Your task to perform on an android device: open app "The Home Depot" (install if not already installed) and go to login screen Image 0: 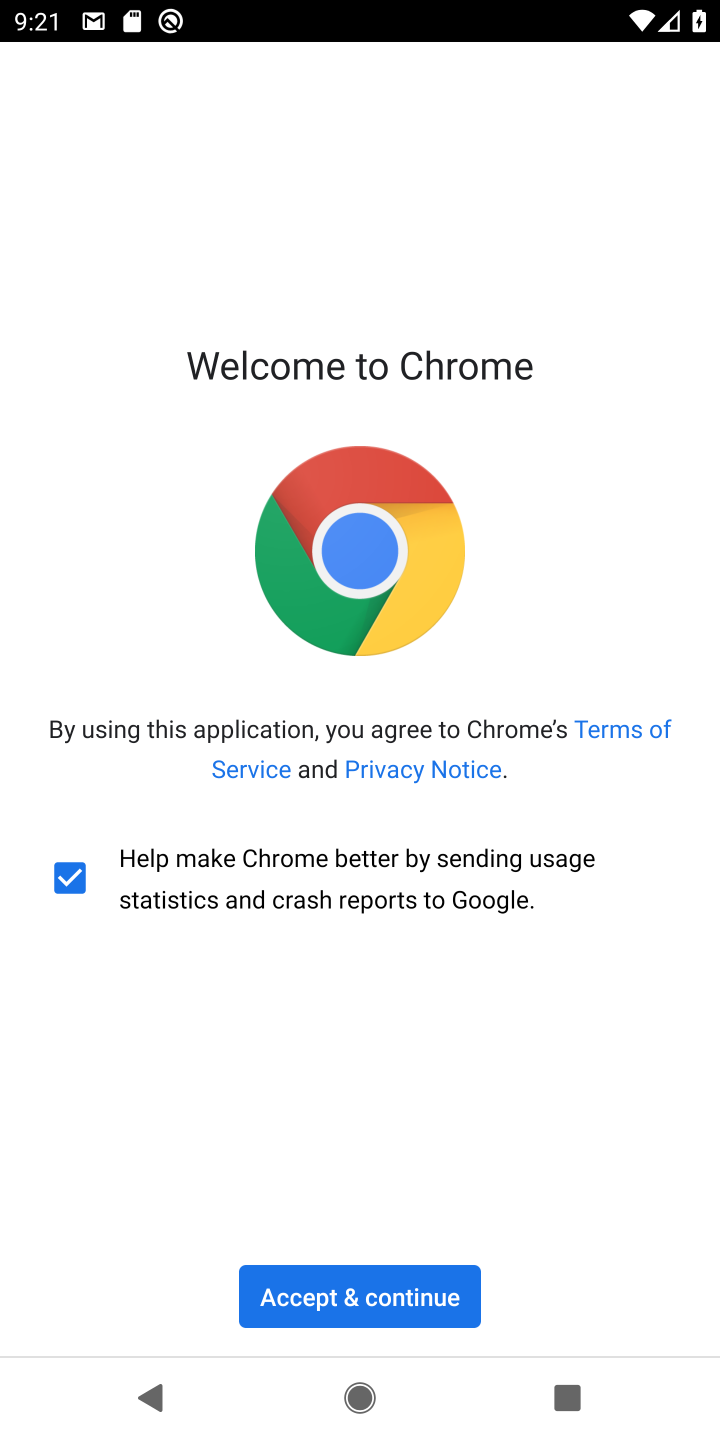
Step 0: press home button
Your task to perform on an android device: open app "The Home Depot" (install if not already installed) and go to login screen Image 1: 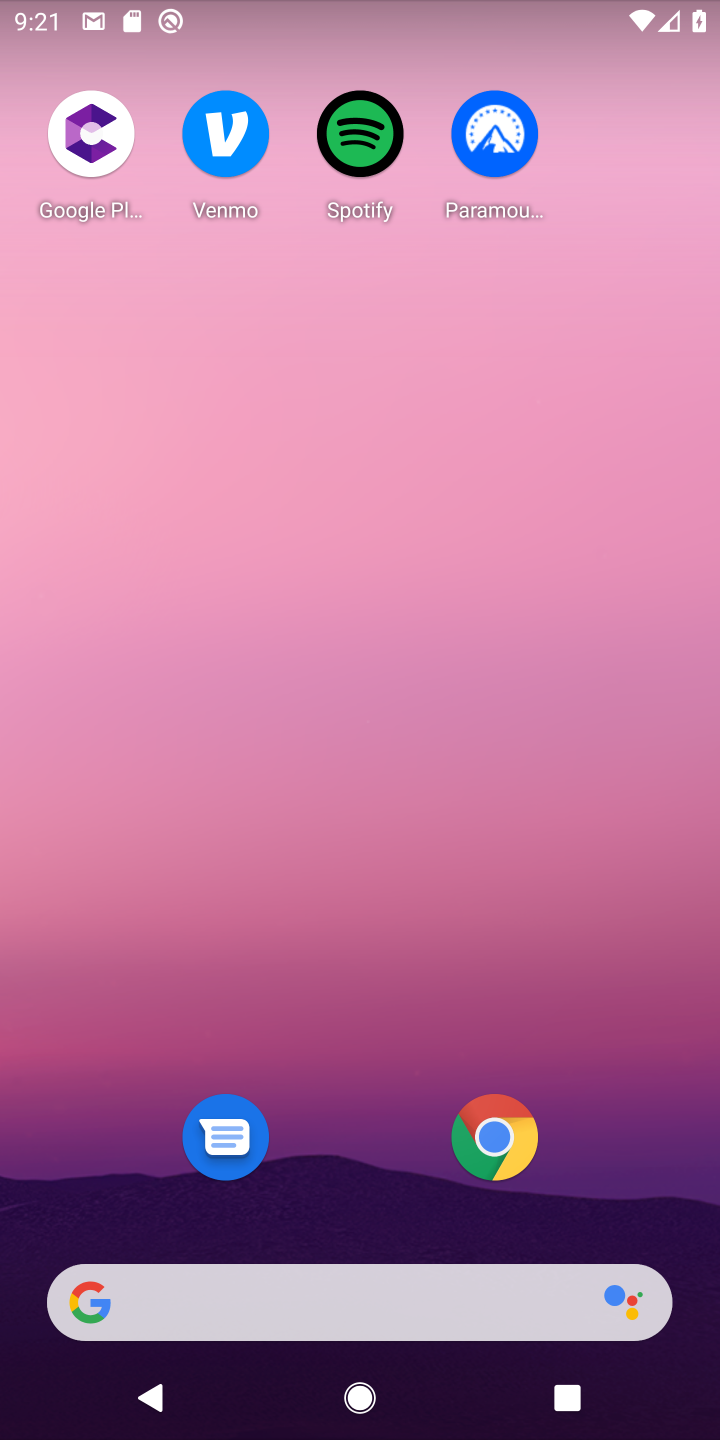
Step 1: drag from (368, 949) to (368, 348)
Your task to perform on an android device: open app "The Home Depot" (install if not already installed) and go to login screen Image 2: 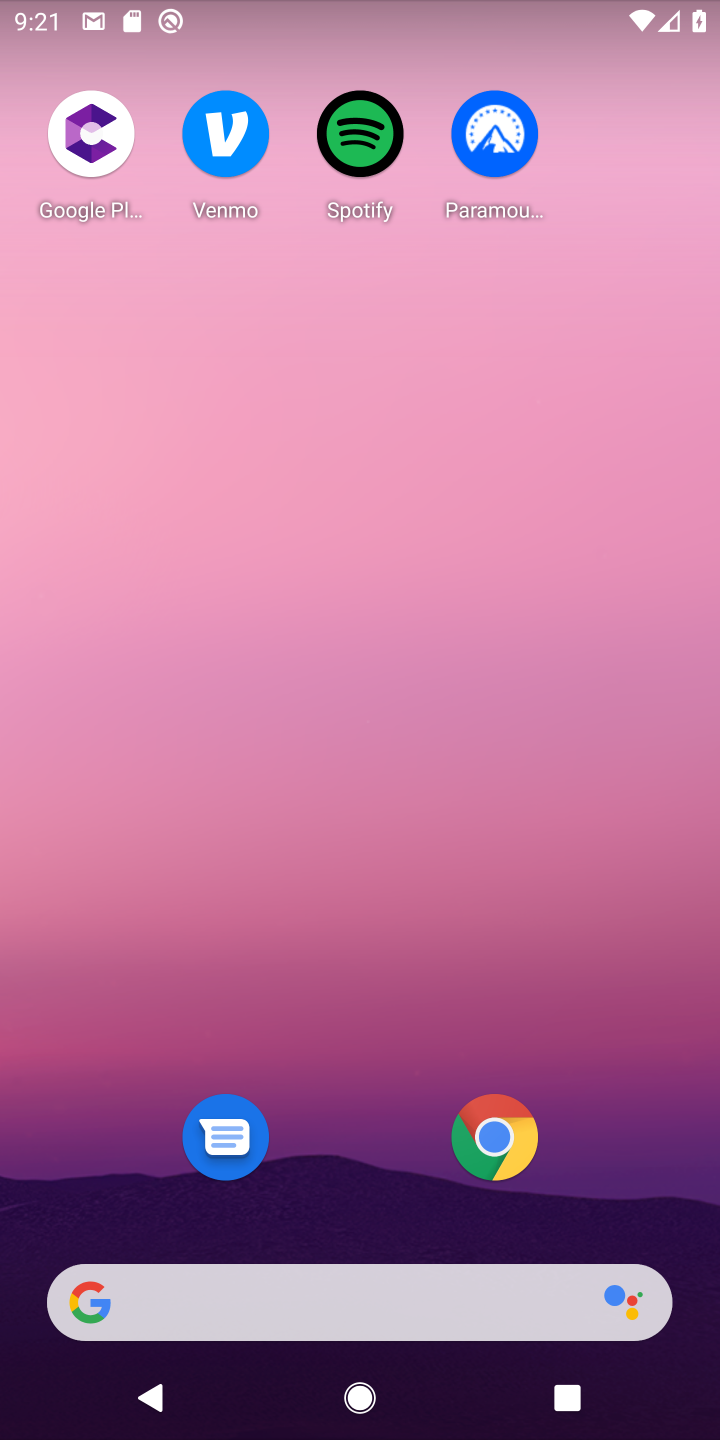
Step 2: drag from (351, 1131) to (359, 383)
Your task to perform on an android device: open app "The Home Depot" (install if not already installed) and go to login screen Image 3: 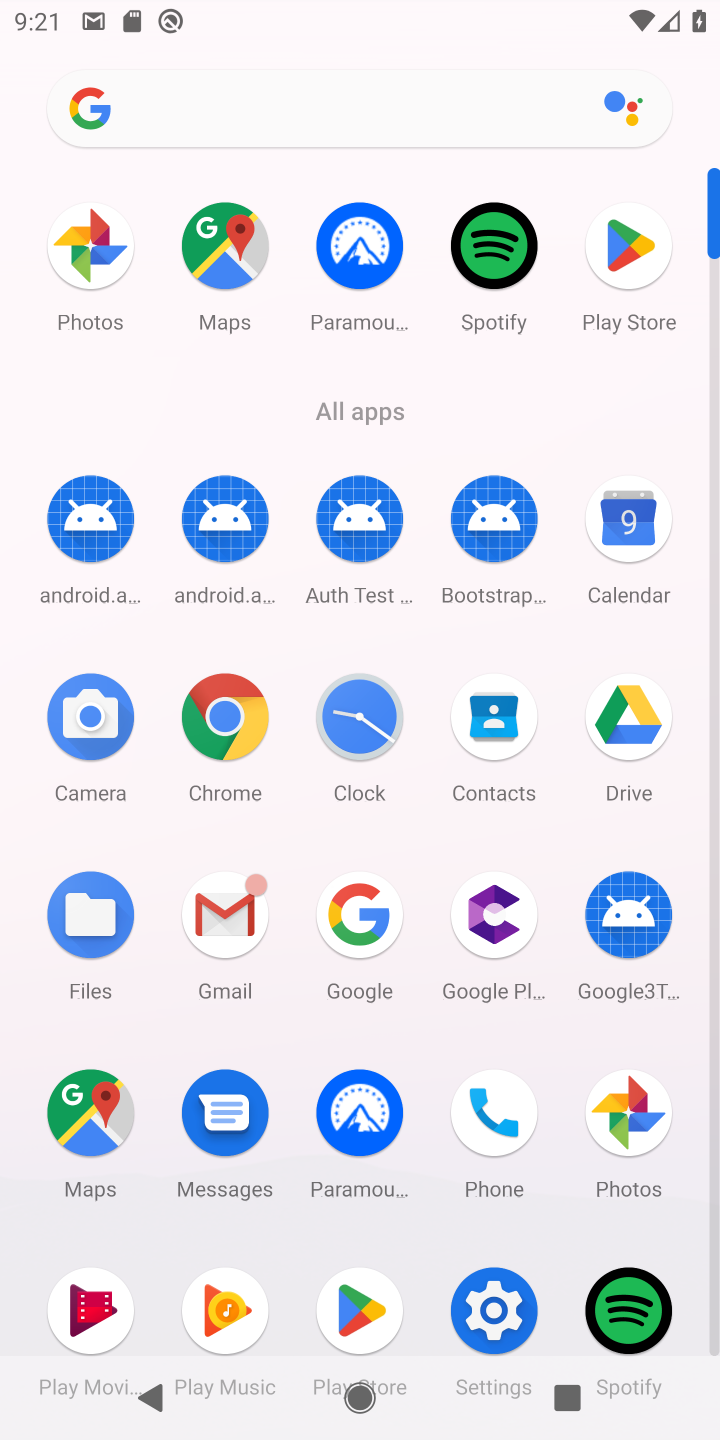
Step 3: click (613, 256)
Your task to perform on an android device: open app "The Home Depot" (install if not already installed) and go to login screen Image 4: 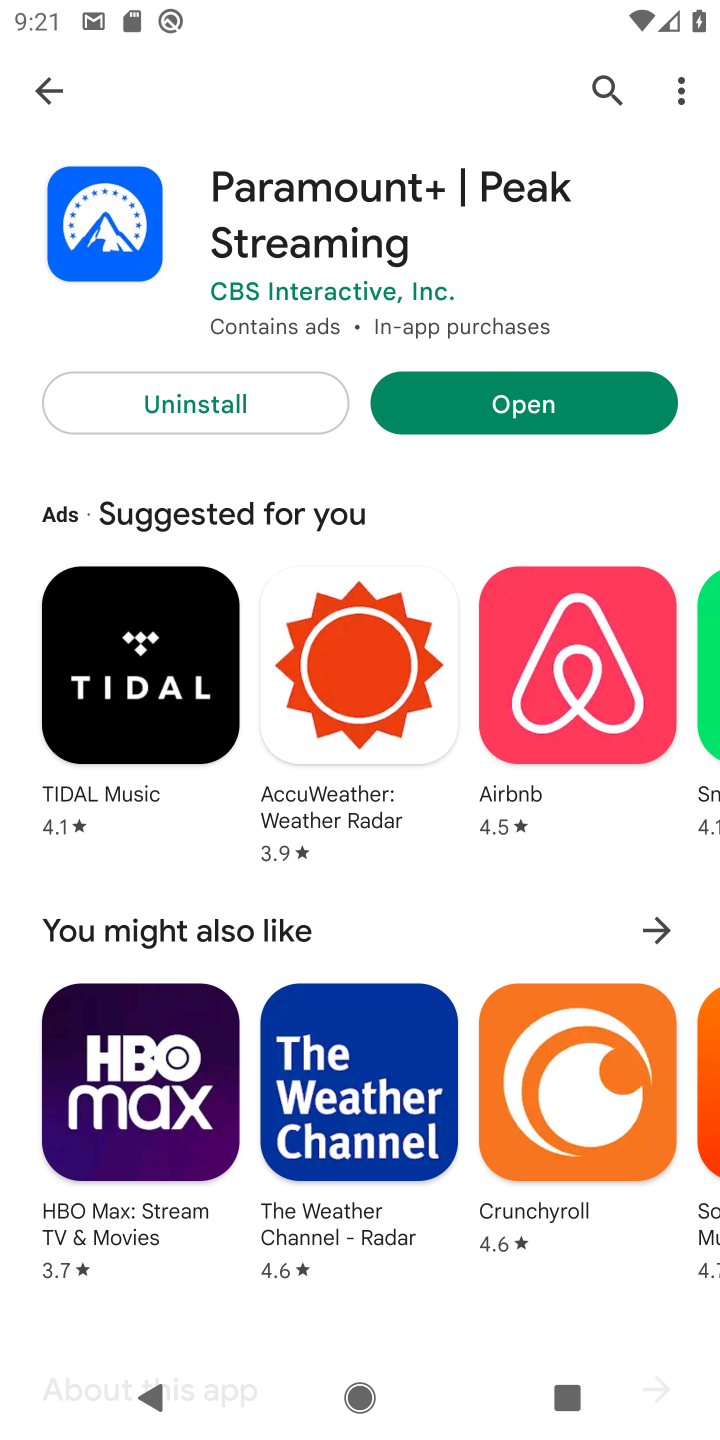
Step 4: click (596, 93)
Your task to perform on an android device: open app "The Home Depot" (install if not already installed) and go to login screen Image 5: 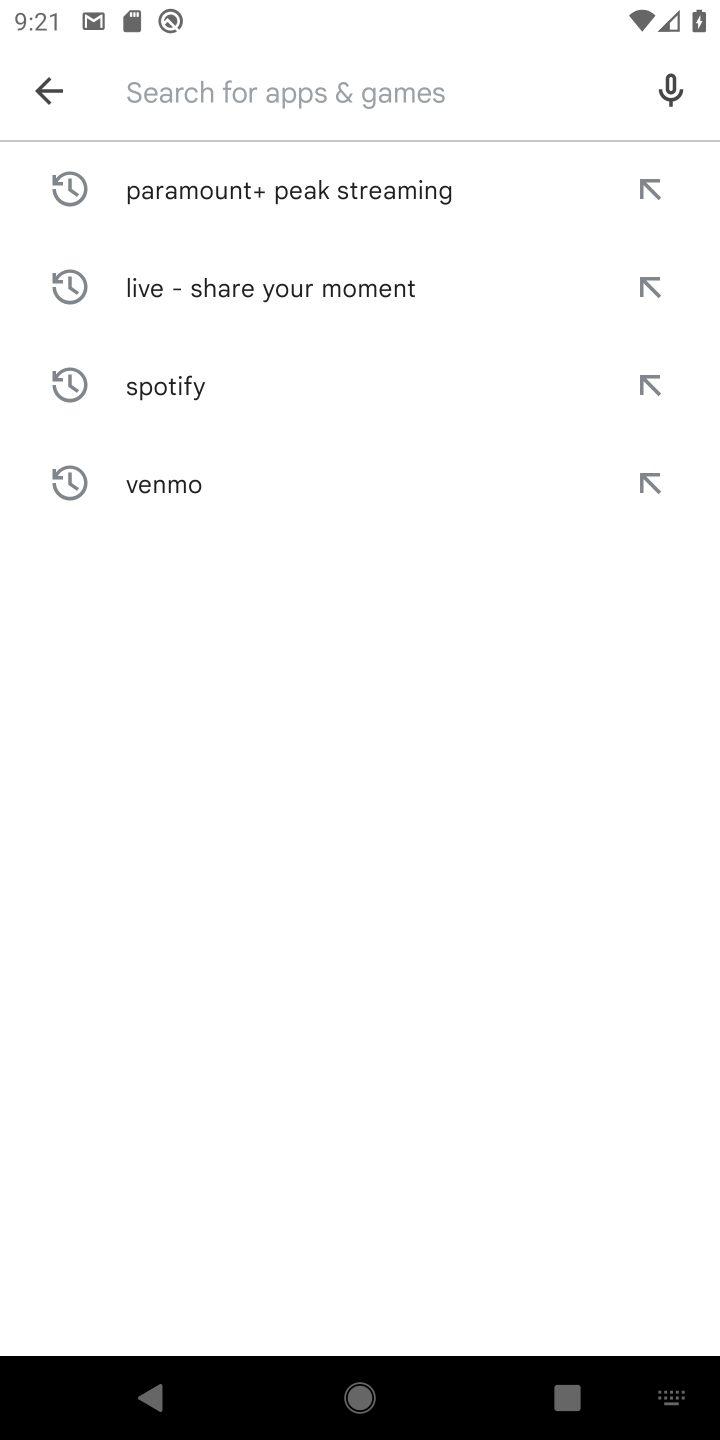
Step 5: type "The Home Depot"
Your task to perform on an android device: open app "The Home Depot" (install if not already installed) and go to login screen Image 6: 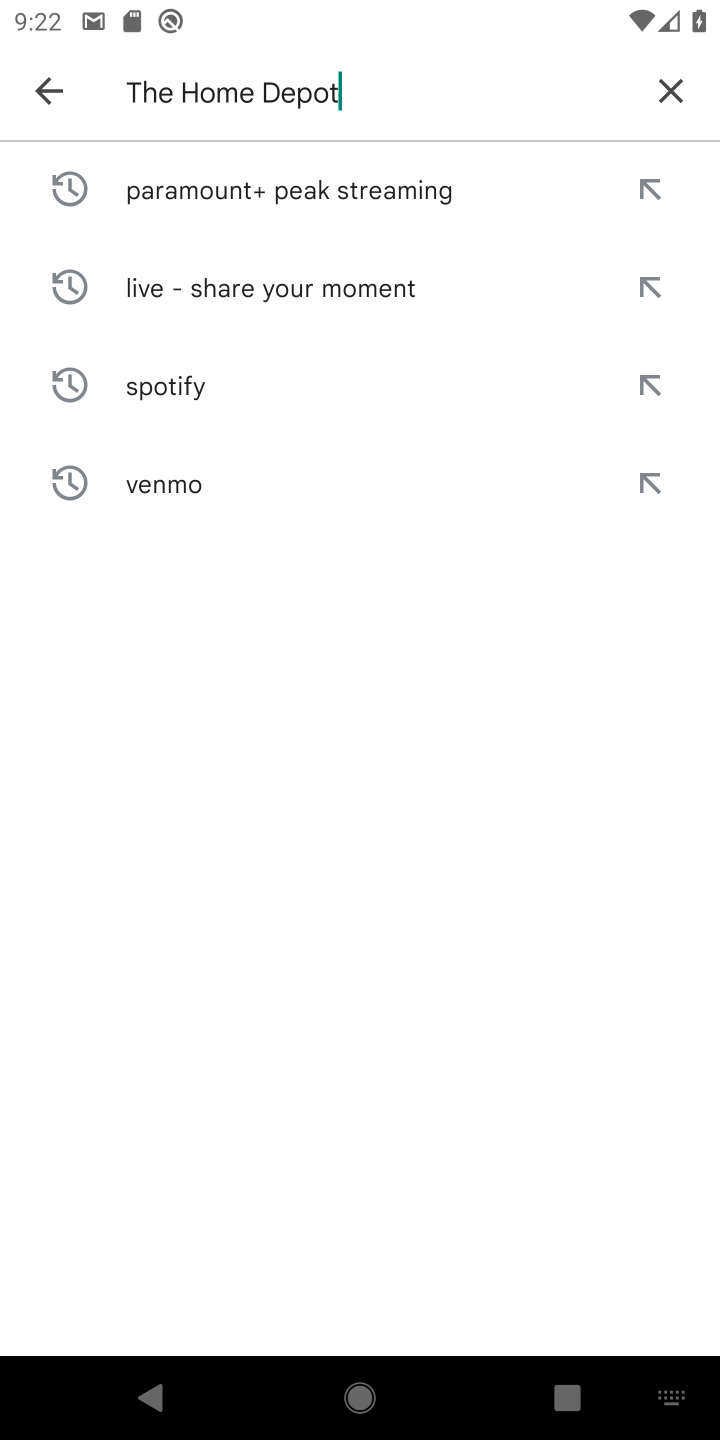
Step 6: type ""
Your task to perform on an android device: open app "The Home Depot" (install if not already installed) and go to login screen Image 7: 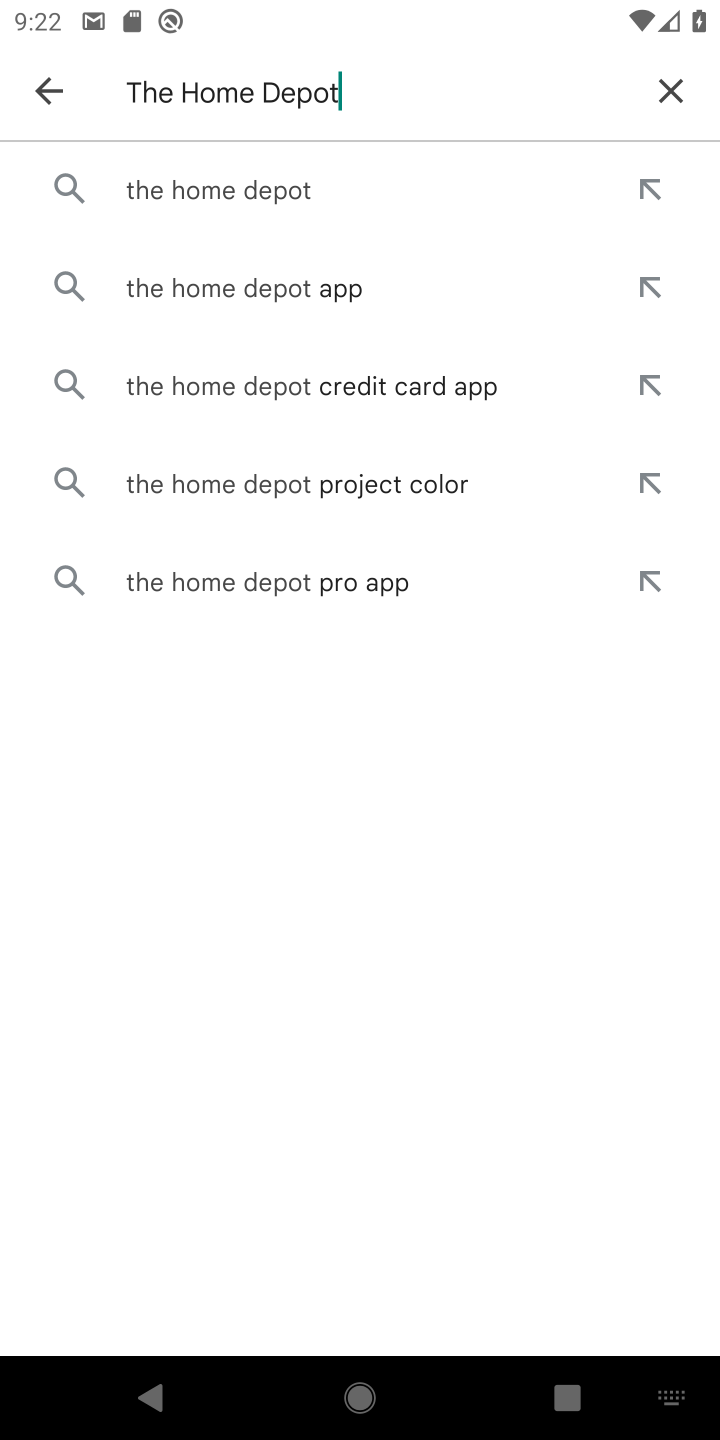
Step 7: click (355, 191)
Your task to perform on an android device: open app "The Home Depot" (install if not already installed) and go to login screen Image 8: 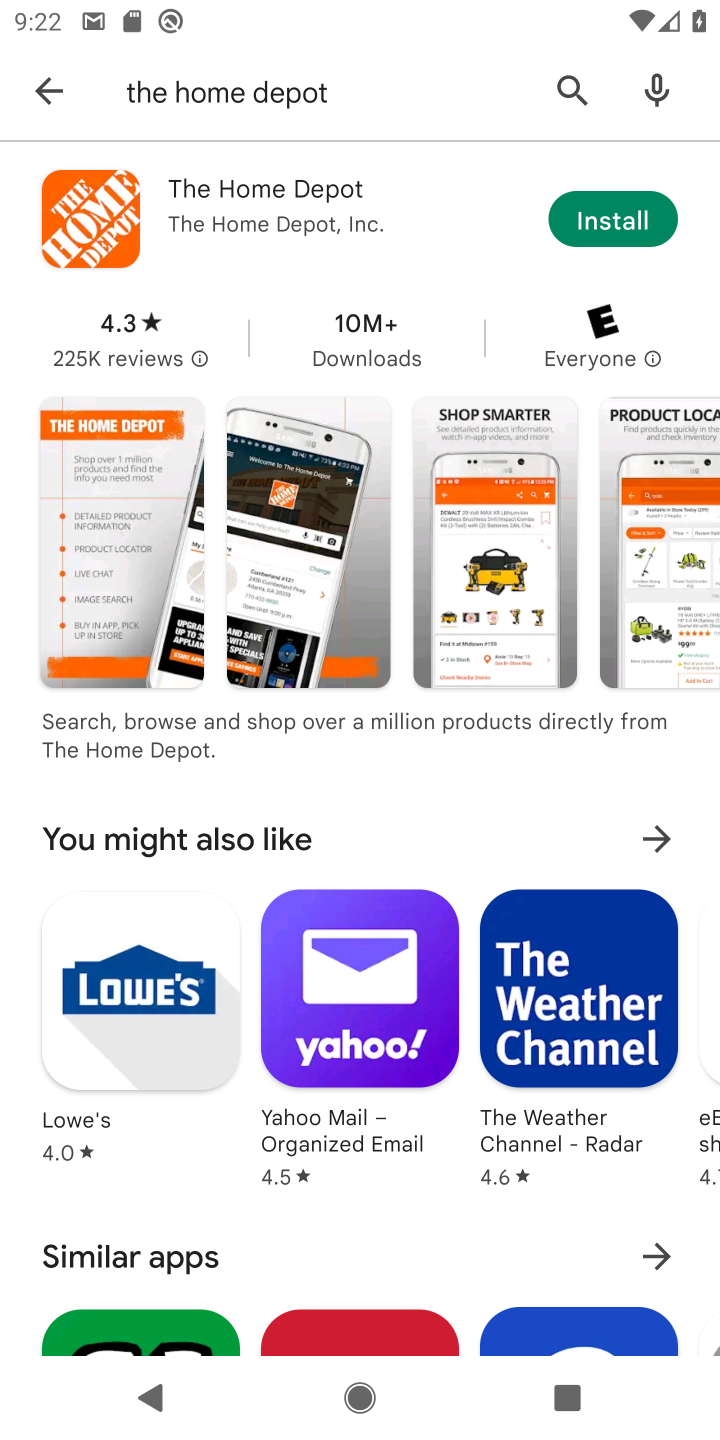
Step 8: click (628, 205)
Your task to perform on an android device: open app "The Home Depot" (install if not already installed) and go to login screen Image 9: 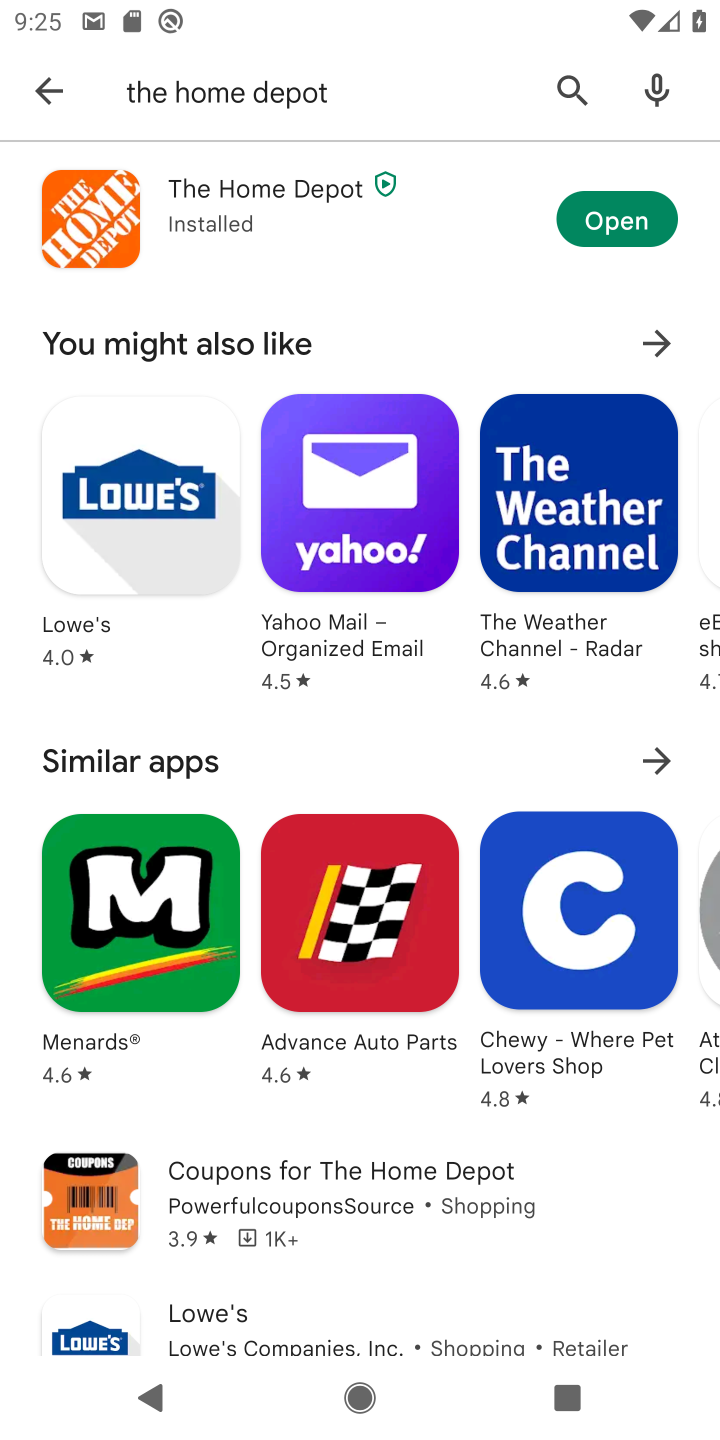
Step 9: click (594, 233)
Your task to perform on an android device: open app "The Home Depot" (install if not already installed) and go to login screen Image 10: 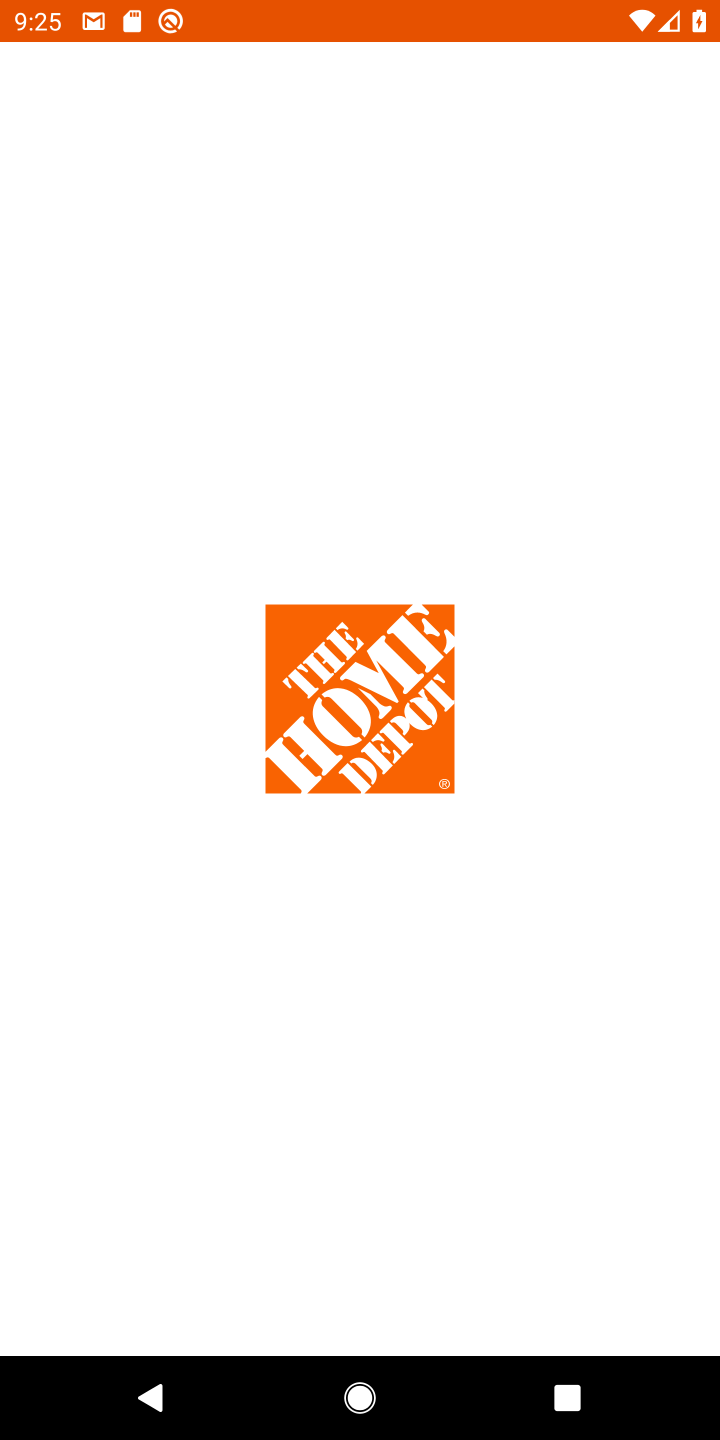
Step 10: task complete